Your task to perform on an android device: clear history in the chrome app Image 0: 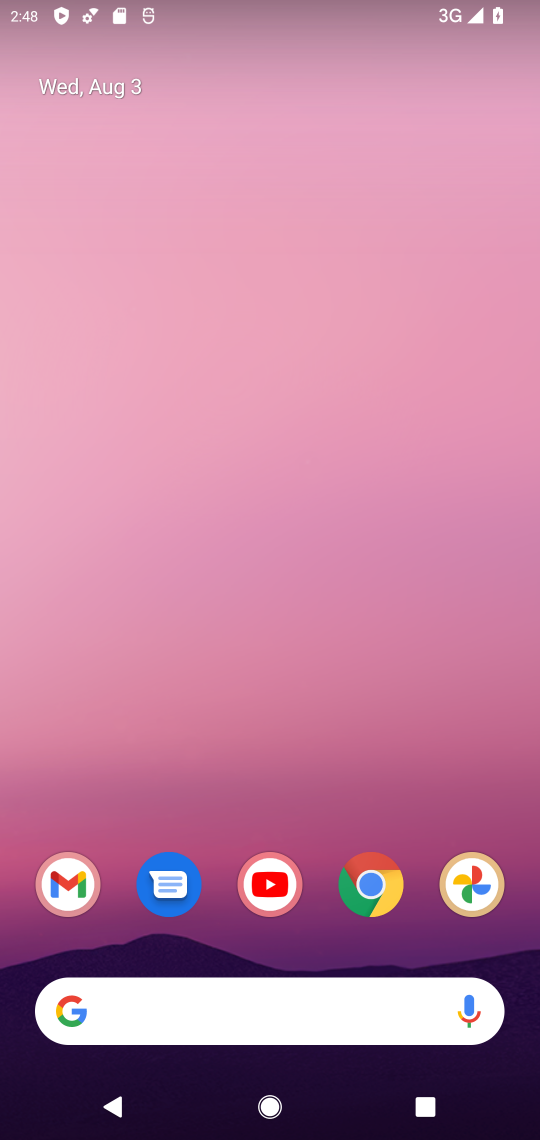
Step 0: click (388, 899)
Your task to perform on an android device: clear history in the chrome app Image 1: 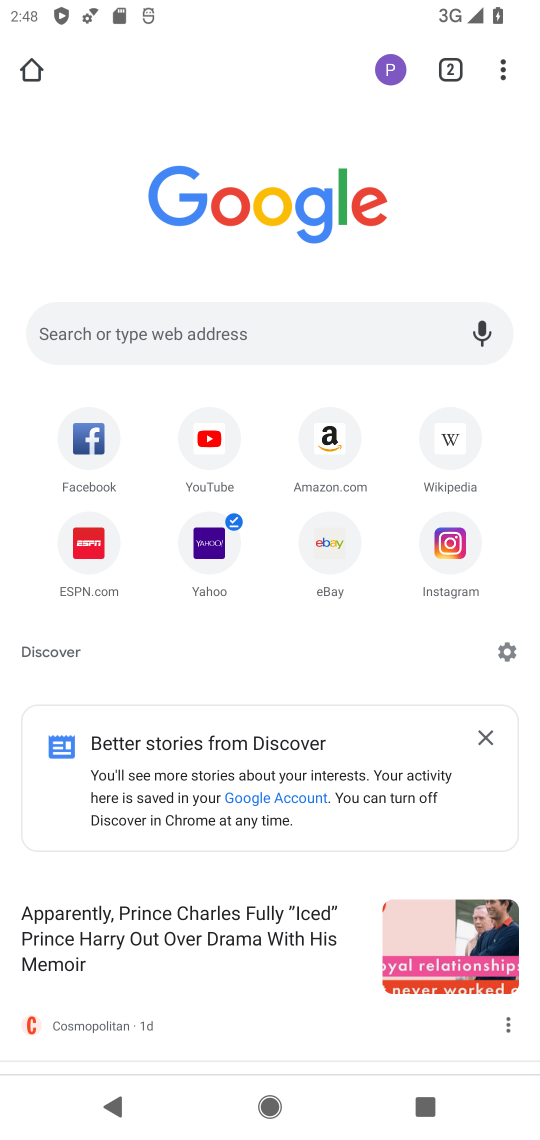
Step 1: click (493, 55)
Your task to perform on an android device: clear history in the chrome app Image 2: 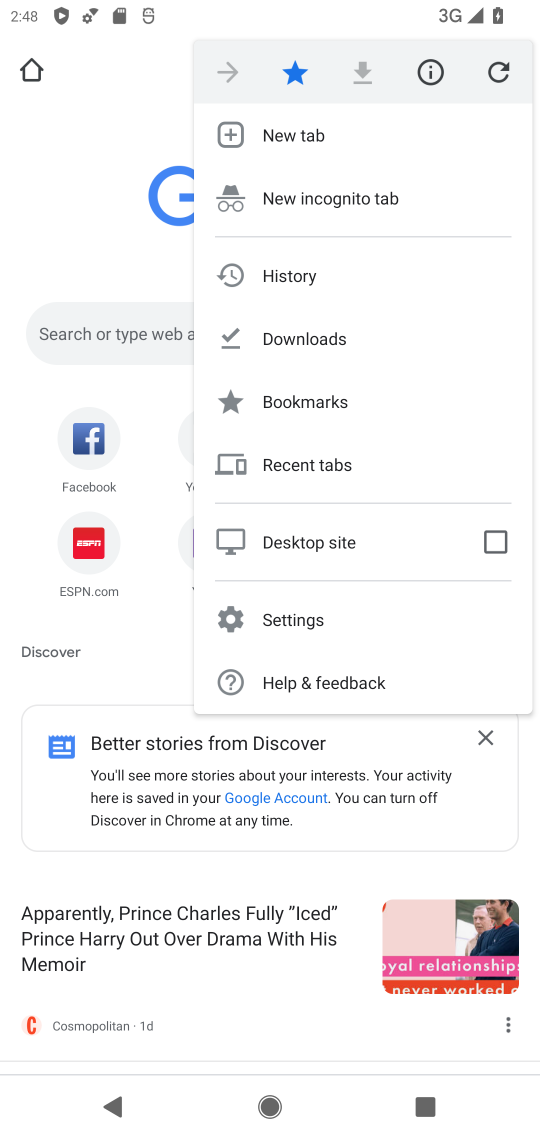
Step 2: click (300, 611)
Your task to perform on an android device: clear history in the chrome app Image 3: 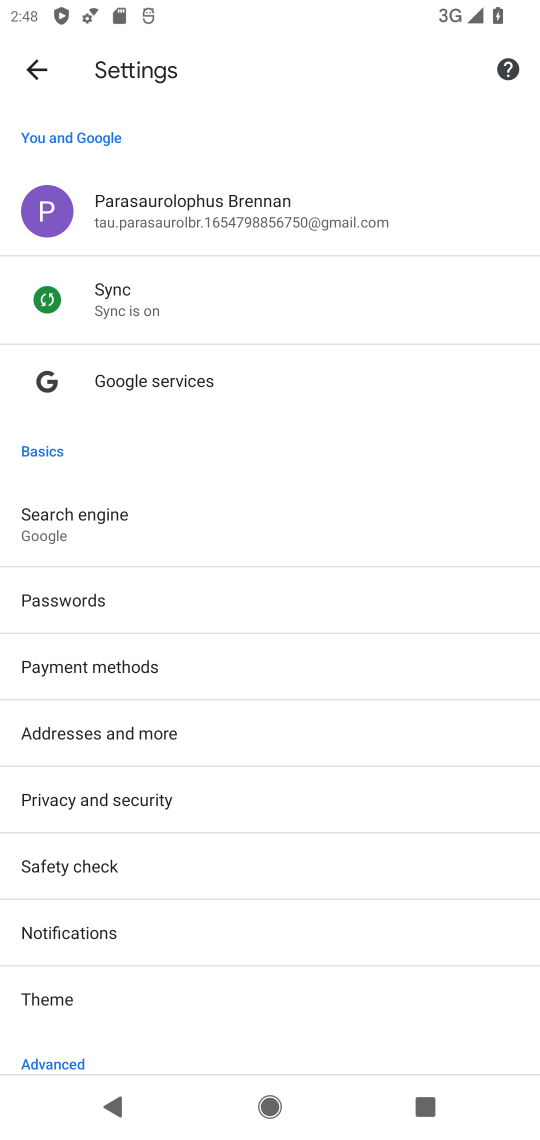
Step 3: task complete